Your task to perform on an android device: Go to Google maps Image 0: 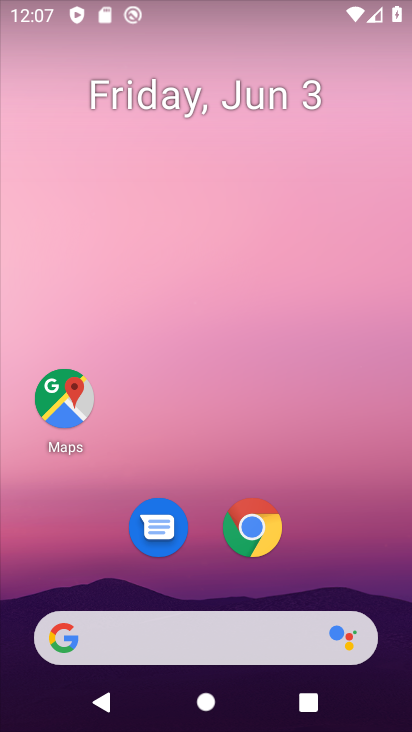
Step 0: click (66, 394)
Your task to perform on an android device: Go to Google maps Image 1: 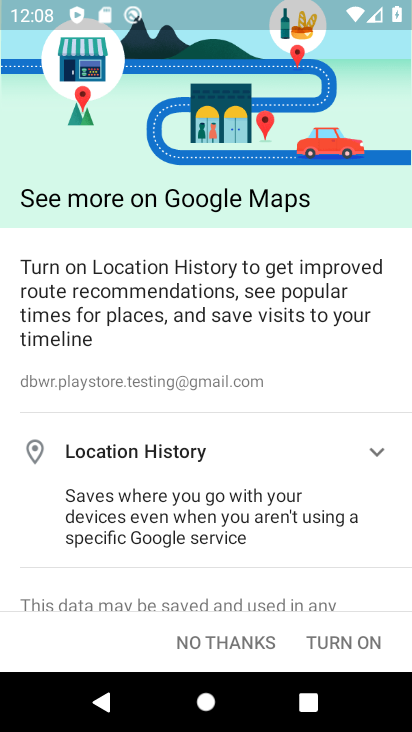
Step 1: click (268, 652)
Your task to perform on an android device: Go to Google maps Image 2: 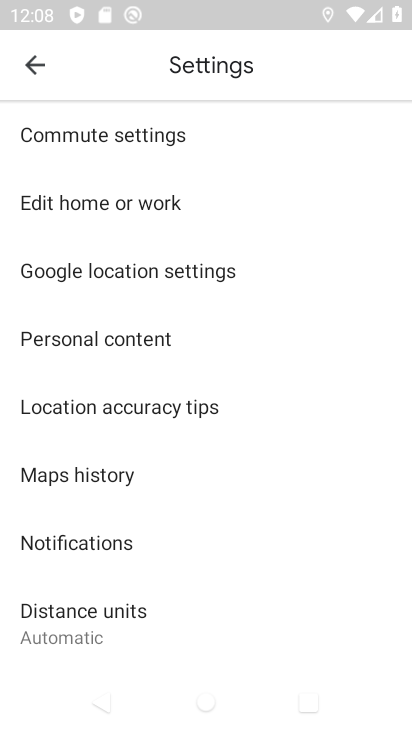
Step 2: click (40, 63)
Your task to perform on an android device: Go to Google maps Image 3: 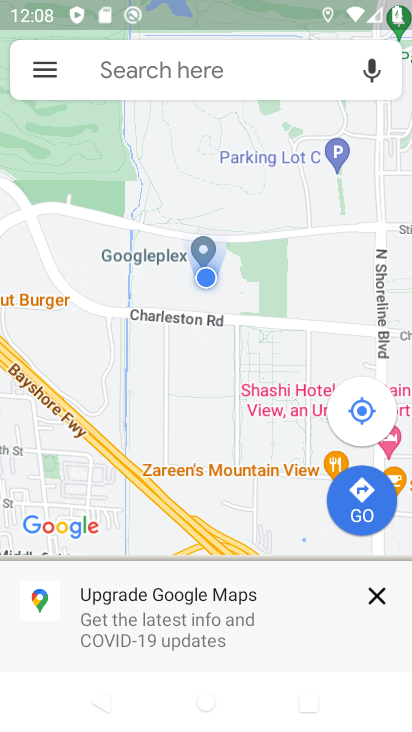
Step 3: click (377, 593)
Your task to perform on an android device: Go to Google maps Image 4: 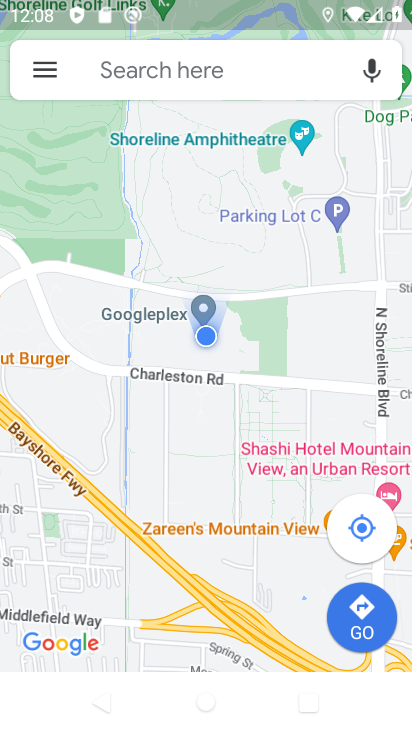
Step 4: task complete